Your task to perform on an android device: check google app version Image 0: 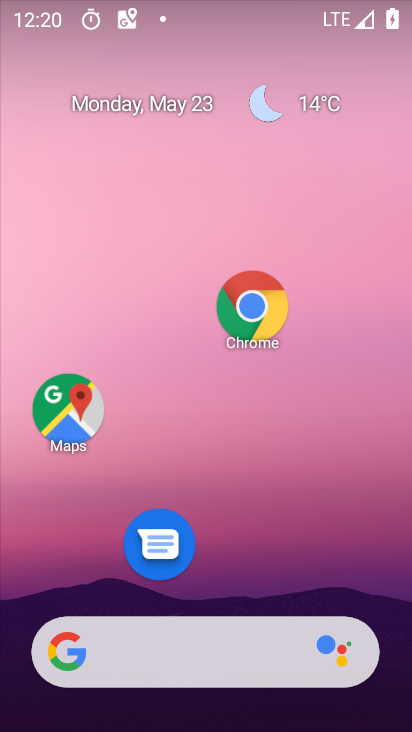
Step 0: drag from (231, 589) to (223, 7)
Your task to perform on an android device: check google app version Image 1: 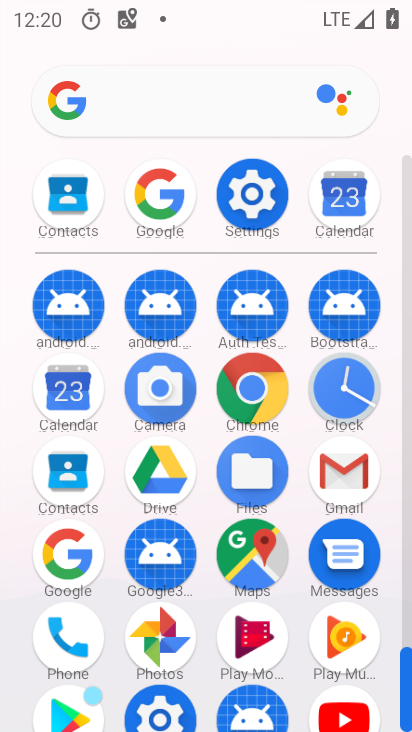
Step 1: click (64, 568)
Your task to perform on an android device: check google app version Image 2: 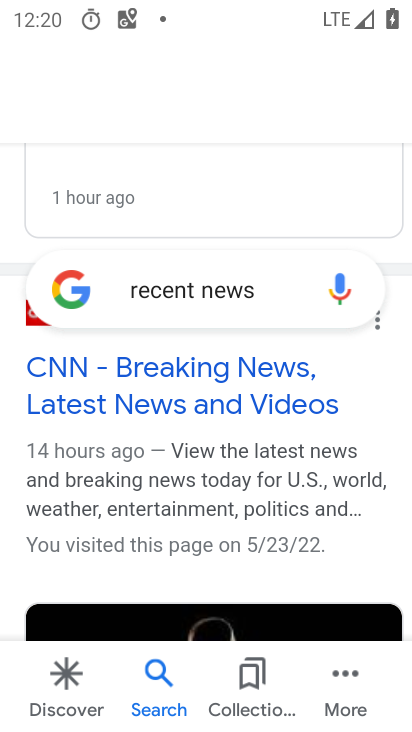
Step 2: click (75, 296)
Your task to perform on an android device: check google app version Image 3: 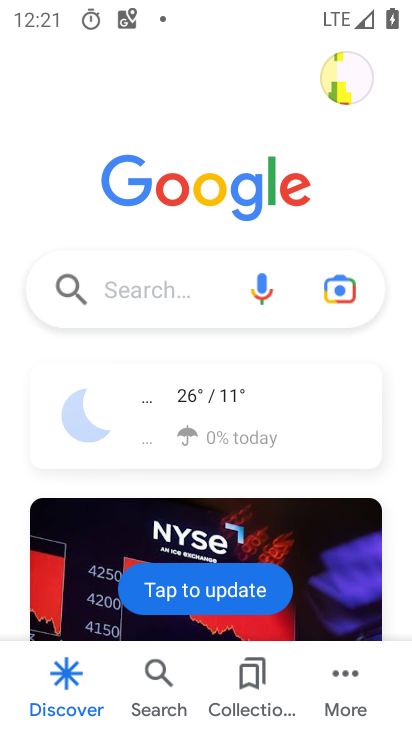
Step 3: task complete